Your task to perform on an android device: Open sound settings Image 0: 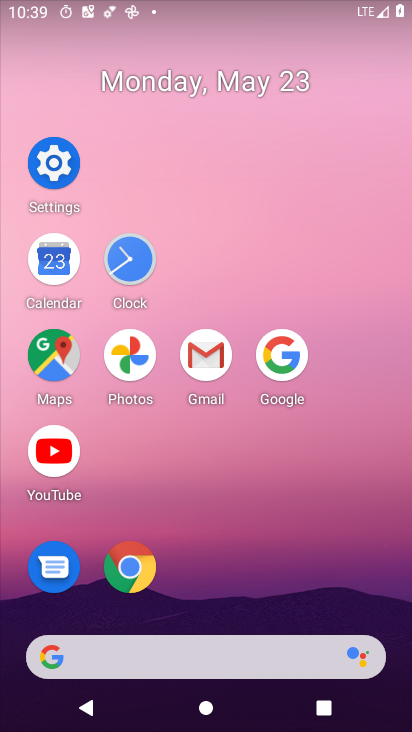
Step 0: click (56, 167)
Your task to perform on an android device: Open sound settings Image 1: 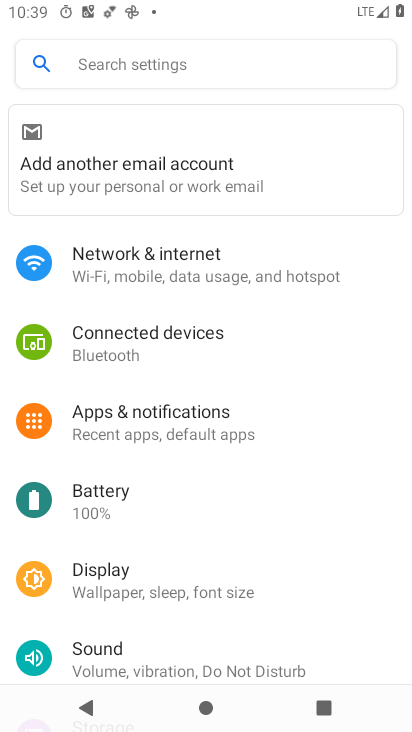
Step 1: drag from (248, 531) to (234, 183)
Your task to perform on an android device: Open sound settings Image 2: 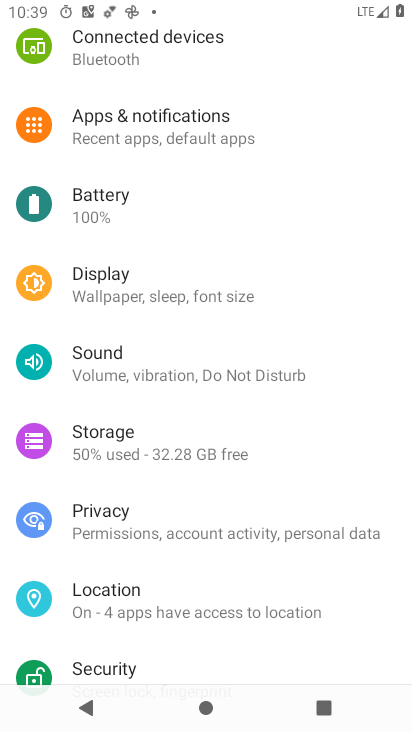
Step 2: click (138, 346)
Your task to perform on an android device: Open sound settings Image 3: 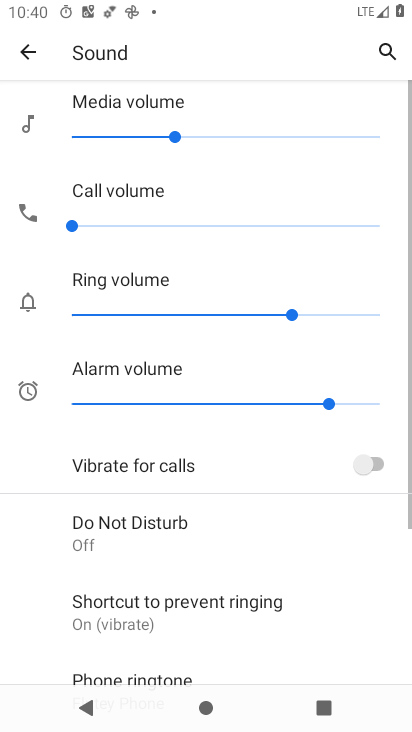
Step 3: task complete